Your task to perform on an android device: snooze an email in the gmail app Image 0: 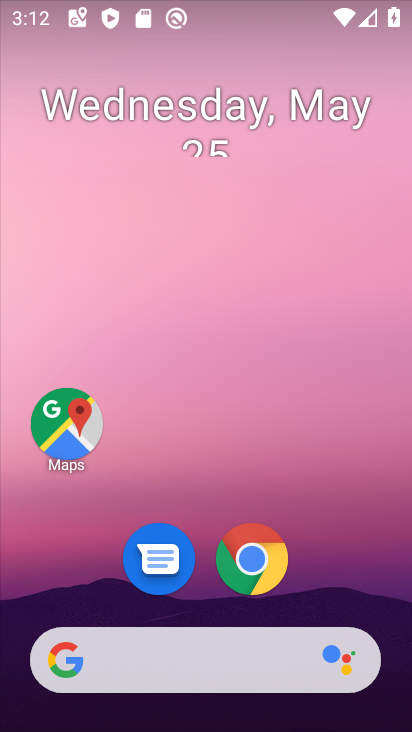
Step 0: drag from (204, 605) to (222, 31)
Your task to perform on an android device: snooze an email in the gmail app Image 1: 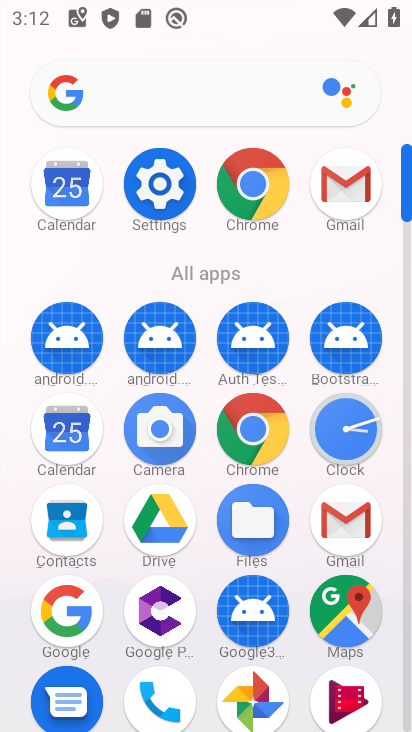
Step 1: click (345, 174)
Your task to perform on an android device: snooze an email in the gmail app Image 2: 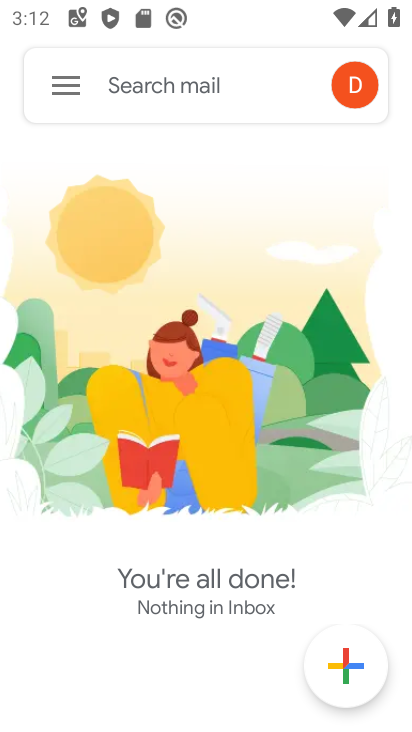
Step 2: task complete